Your task to perform on an android device: Go to Google Image 0: 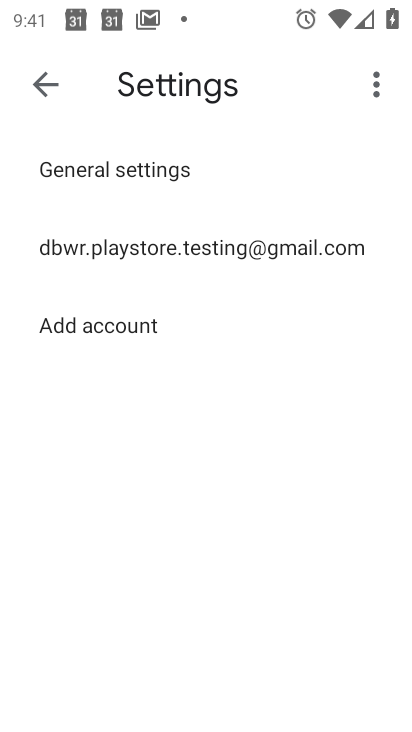
Step 0: click (43, 93)
Your task to perform on an android device: Go to Google Image 1: 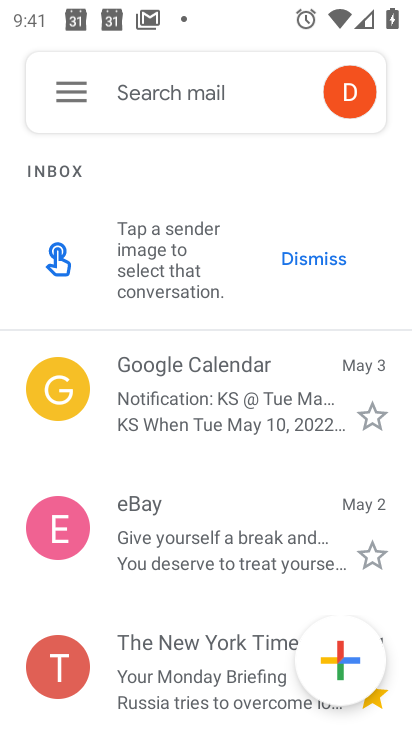
Step 1: press home button
Your task to perform on an android device: Go to Google Image 2: 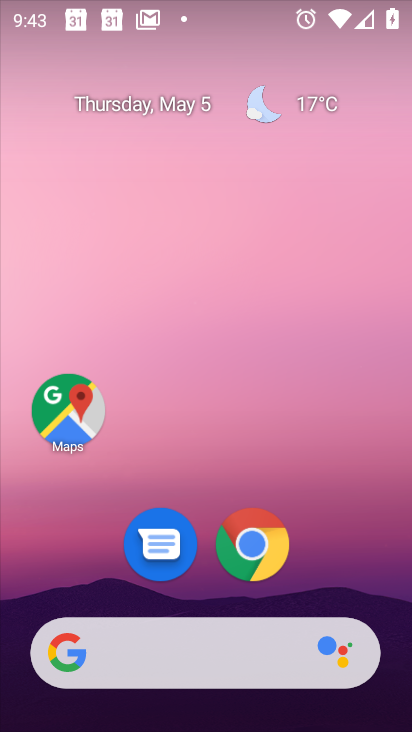
Step 2: click (258, 551)
Your task to perform on an android device: Go to Google Image 3: 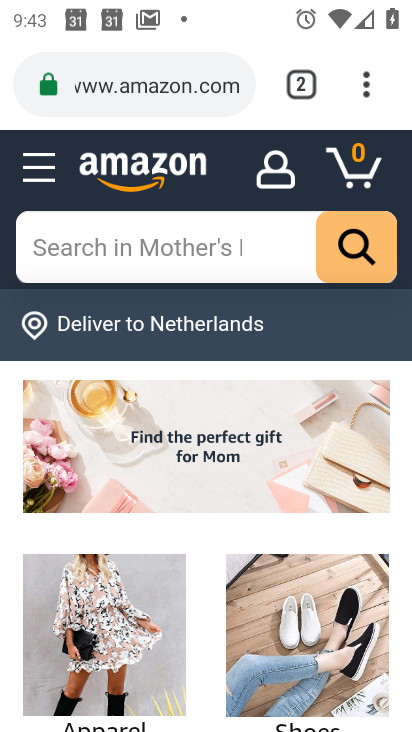
Step 3: click (160, 101)
Your task to perform on an android device: Go to Google Image 4: 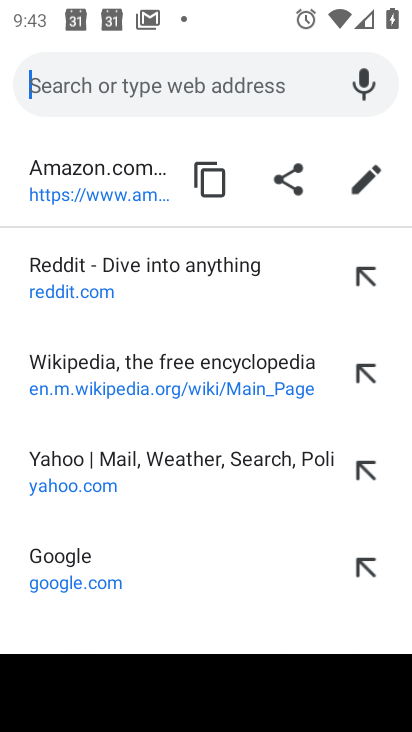
Step 4: type "google.com"
Your task to perform on an android device: Go to Google Image 5: 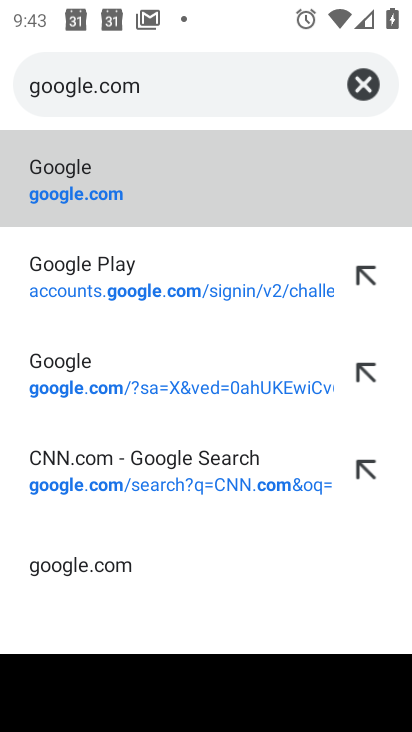
Step 5: click (112, 176)
Your task to perform on an android device: Go to Google Image 6: 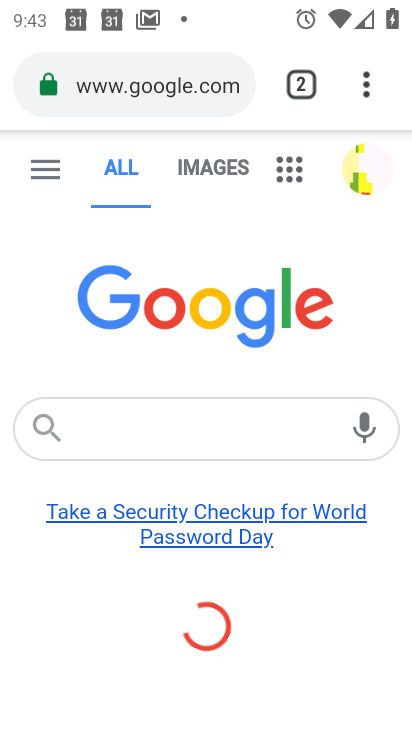
Step 6: task complete